Your task to perform on an android device: Search for vegetarian restaurants on Maps Image 0: 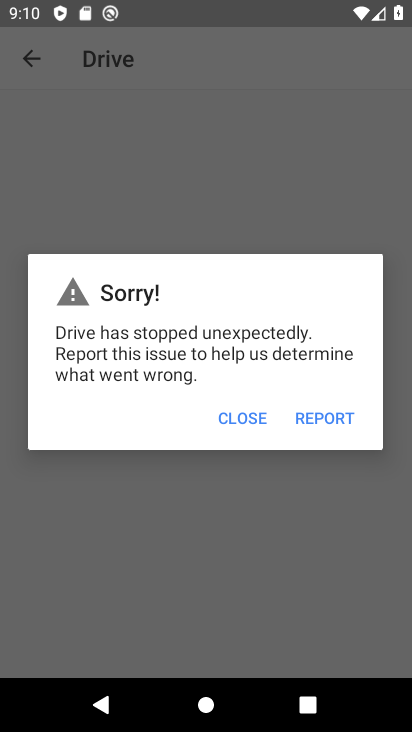
Step 0: press home button
Your task to perform on an android device: Search for vegetarian restaurants on Maps Image 1: 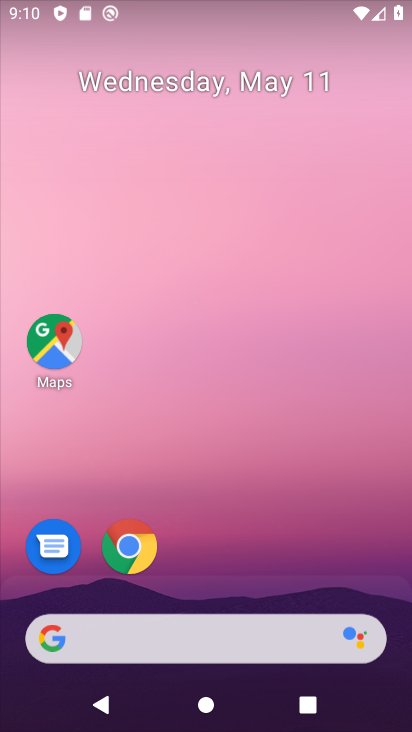
Step 1: drag from (343, 603) to (234, 1)
Your task to perform on an android device: Search for vegetarian restaurants on Maps Image 2: 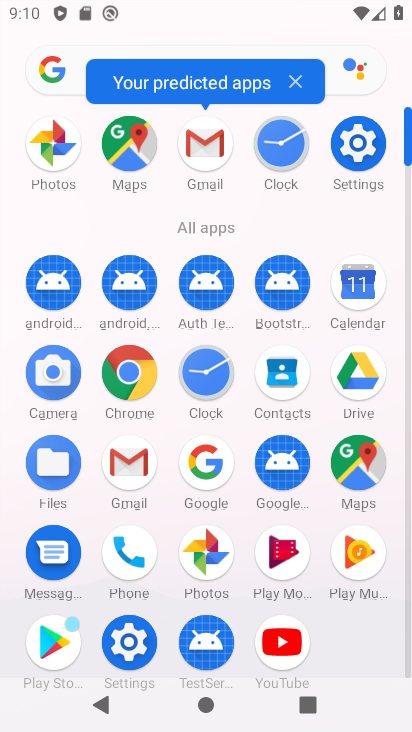
Step 2: click (348, 466)
Your task to perform on an android device: Search for vegetarian restaurants on Maps Image 3: 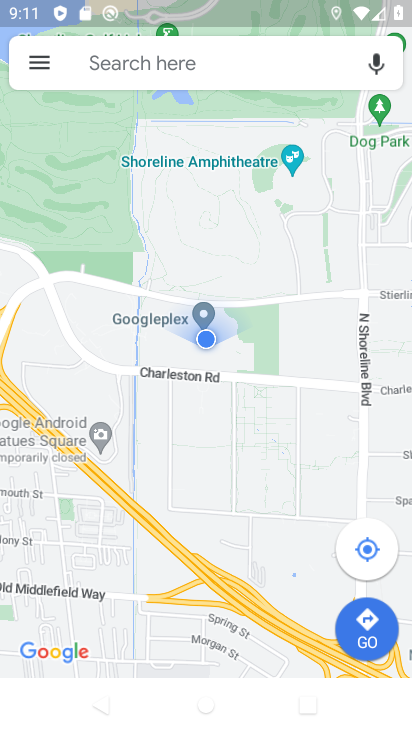
Step 3: click (138, 61)
Your task to perform on an android device: Search for vegetarian restaurants on Maps Image 4: 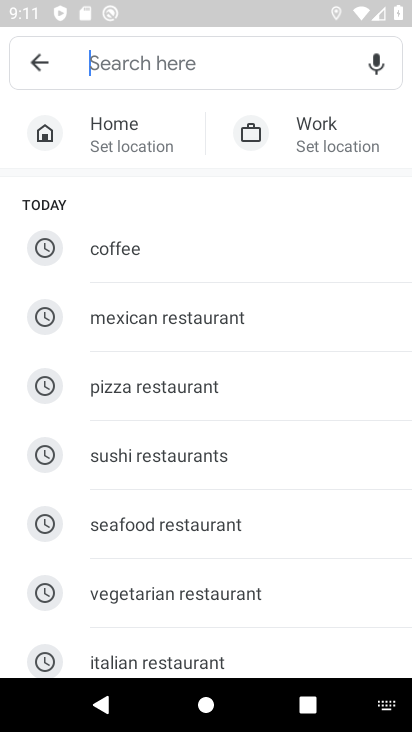
Step 4: click (201, 591)
Your task to perform on an android device: Search for vegetarian restaurants on Maps Image 5: 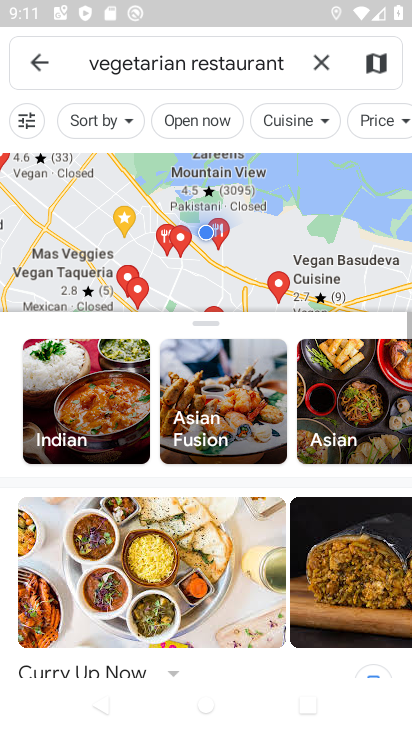
Step 5: task complete